Your task to perform on an android device: Open CNN.com Image 0: 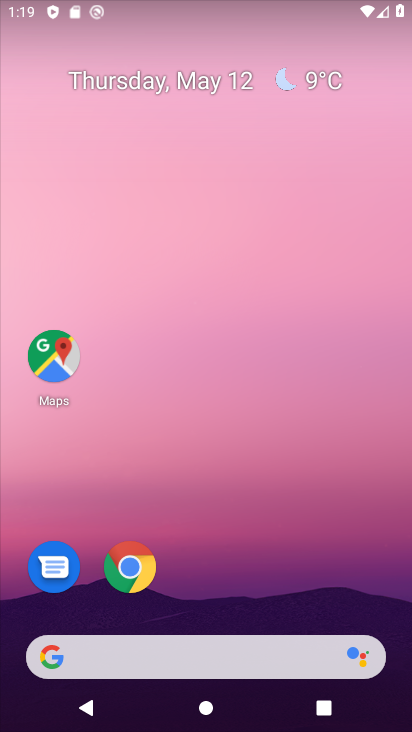
Step 0: click (112, 582)
Your task to perform on an android device: Open CNN.com Image 1: 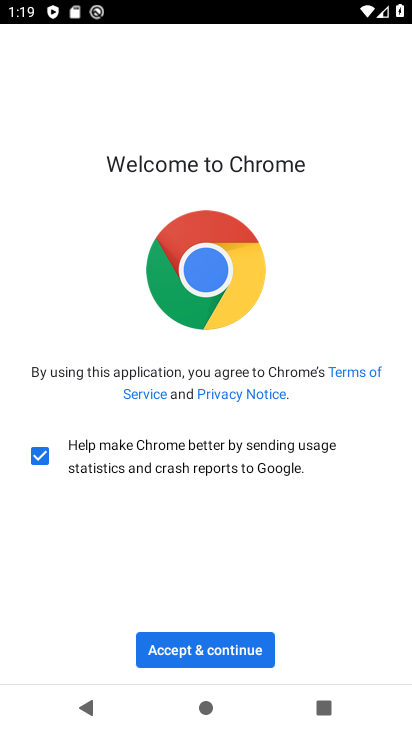
Step 1: click (195, 645)
Your task to perform on an android device: Open CNN.com Image 2: 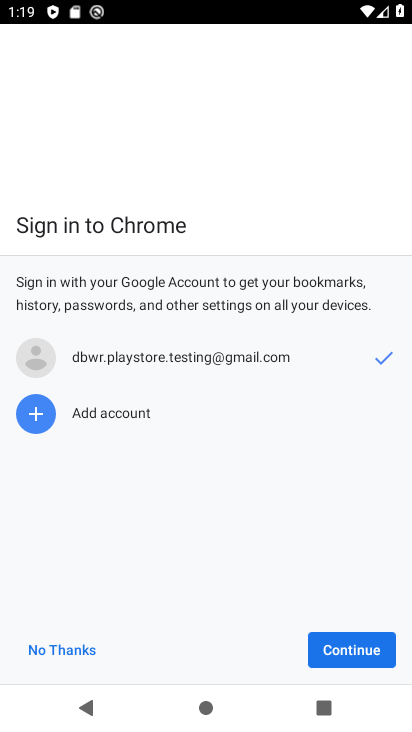
Step 2: click (335, 652)
Your task to perform on an android device: Open CNN.com Image 3: 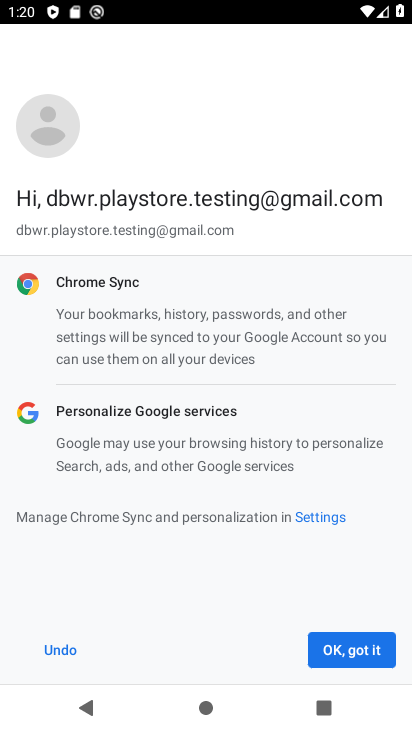
Step 3: click (335, 644)
Your task to perform on an android device: Open CNN.com Image 4: 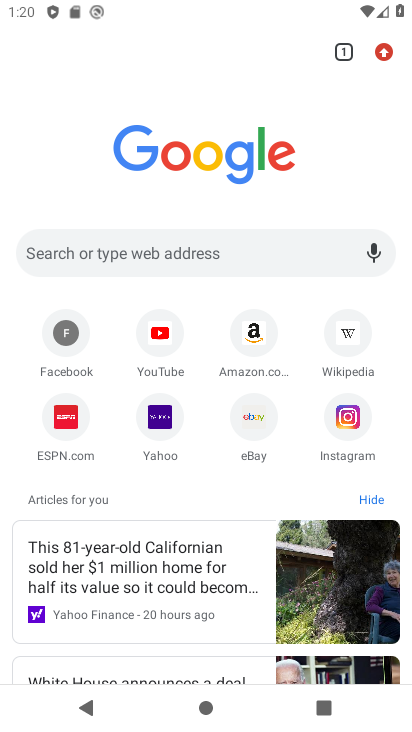
Step 4: click (199, 254)
Your task to perform on an android device: Open CNN.com Image 5: 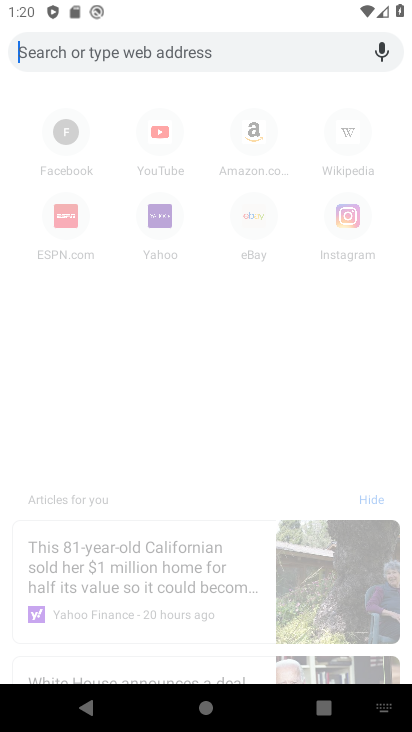
Step 5: type "www.cnn.com"
Your task to perform on an android device: Open CNN.com Image 6: 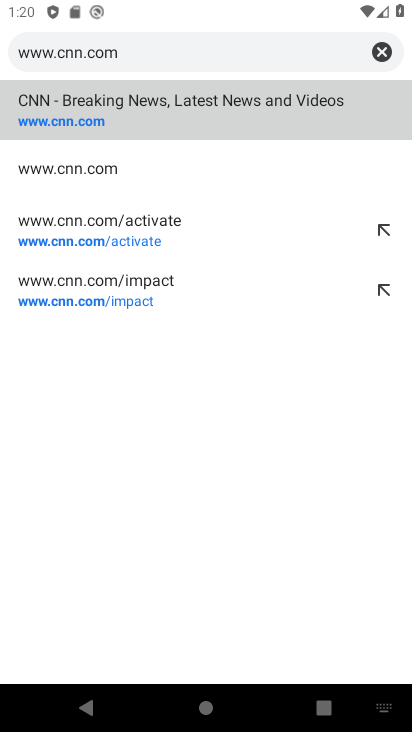
Step 6: click (67, 124)
Your task to perform on an android device: Open CNN.com Image 7: 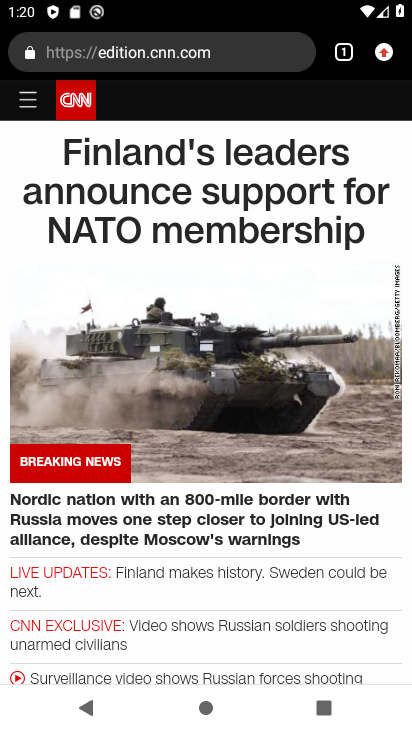
Step 7: task complete